Your task to perform on an android device: turn off airplane mode Image 0: 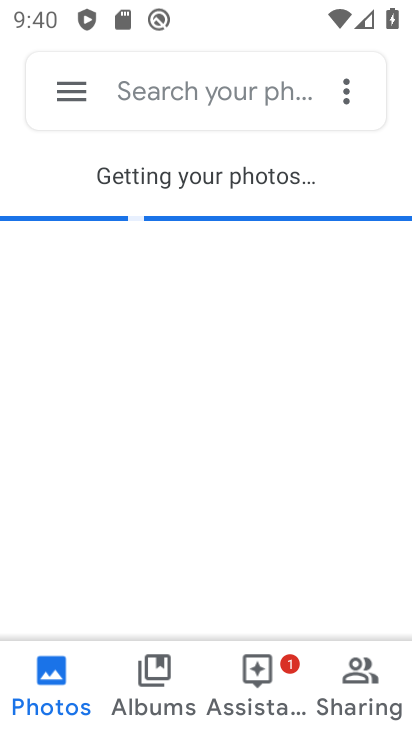
Step 0: press home button
Your task to perform on an android device: turn off airplane mode Image 1: 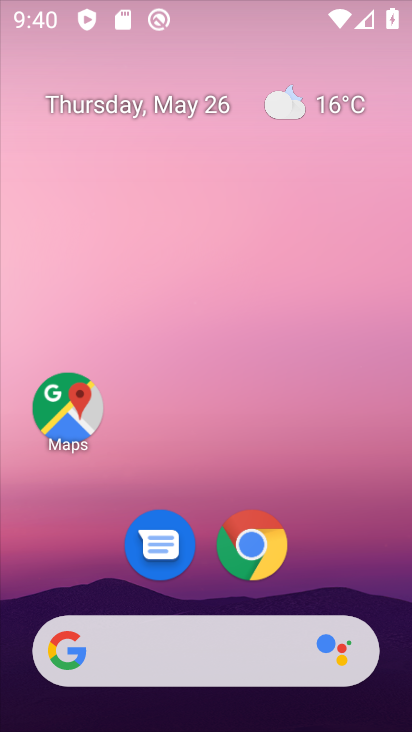
Step 1: drag from (325, 558) to (295, 80)
Your task to perform on an android device: turn off airplane mode Image 2: 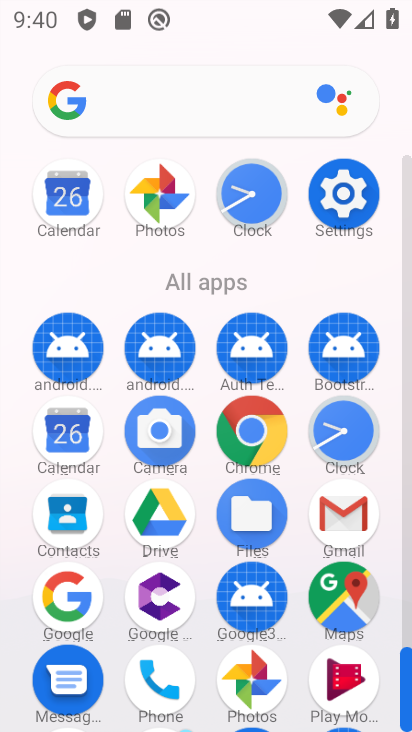
Step 2: click (339, 199)
Your task to perform on an android device: turn off airplane mode Image 3: 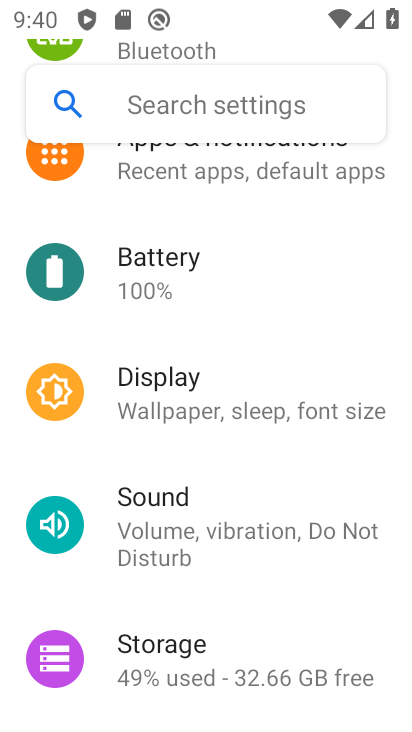
Step 3: drag from (166, 188) to (260, 603)
Your task to perform on an android device: turn off airplane mode Image 4: 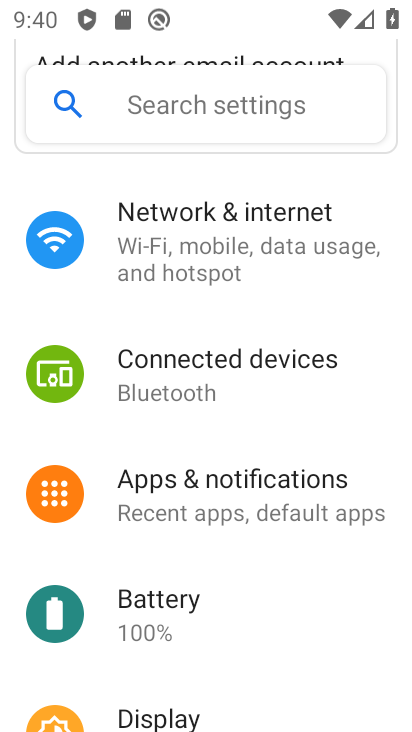
Step 4: click (197, 252)
Your task to perform on an android device: turn off airplane mode Image 5: 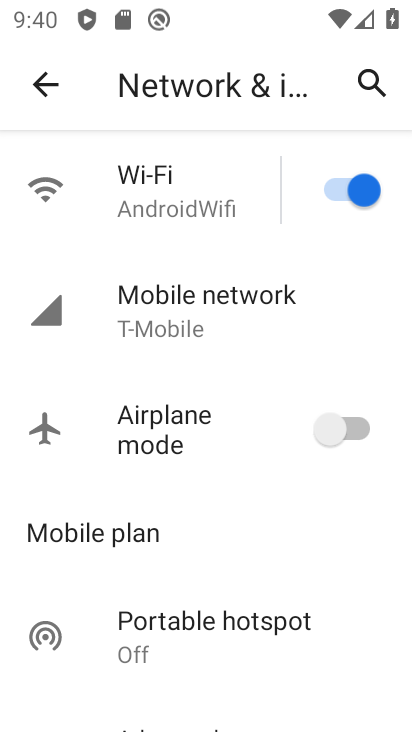
Step 5: task complete